Your task to perform on an android device: choose inbox layout in the gmail app Image 0: 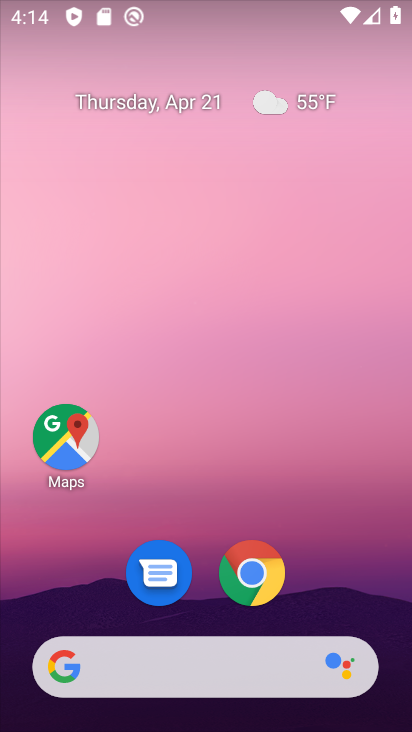
Step 0: drag from (380, 613) to (268, 125)
Your task to perform on an android device: choose inbox layout in the gmail app Image 1: 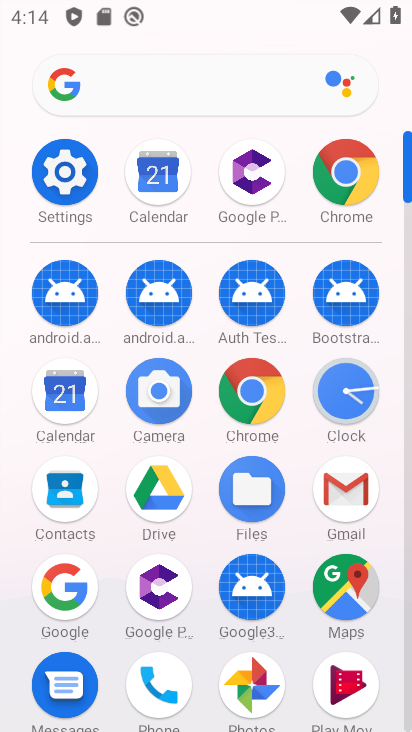
Step 1: click (410, 689)
Your task to perform on an android device: choose inbox layout in the gmail app Image 2: 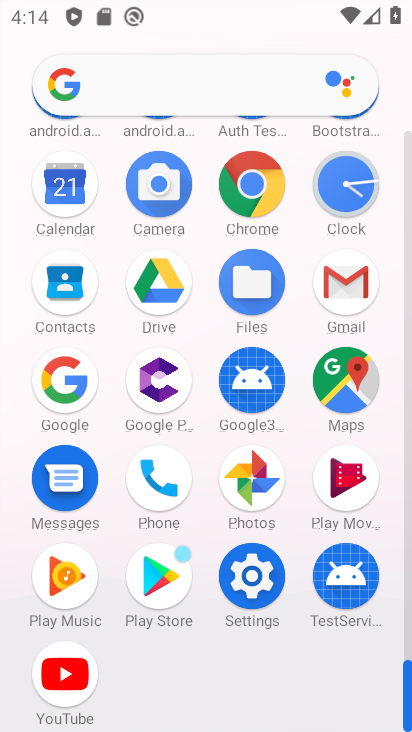
Step 2: click (346, 276)
Your task to perform on an android device: choose inbox layout in the gmail app Image 3: 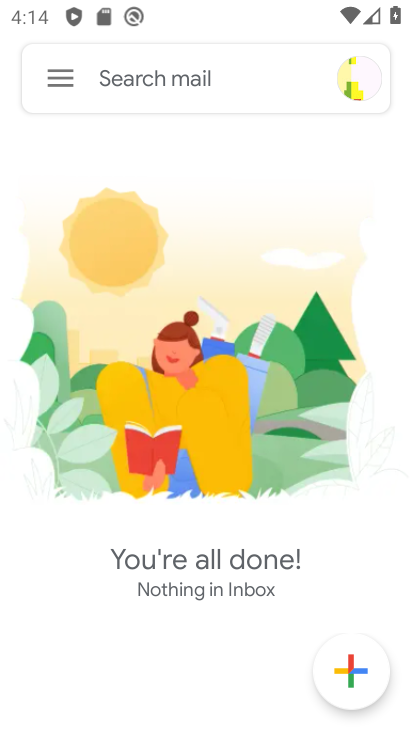
Step 3: click (55, 78)
Your task to perform on an android device: choose inbox layout in the gmail app Image 4: 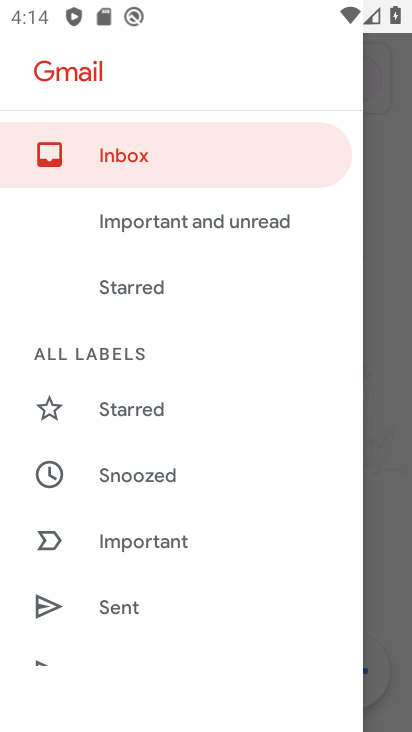
Step 4: drag from (255, 503) to (271, 231)
Your task to perform on an android device: choose inbox layout in the gmail app Image 5: 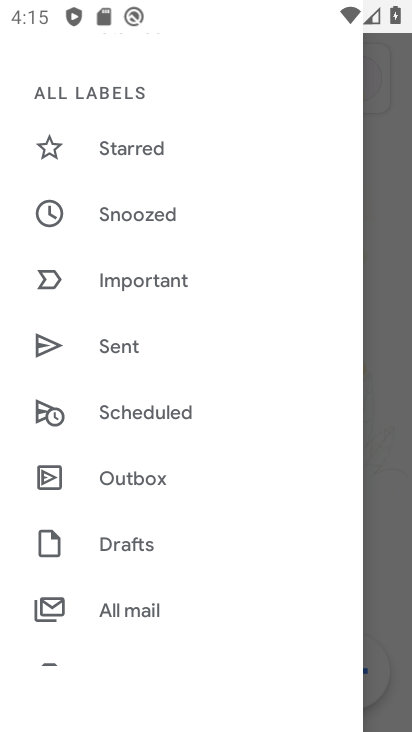
Step 5: drag from (281, 516) to (298, 219)
Your task to perform on an android device: choose inbox layout in the gmail app Image 6: 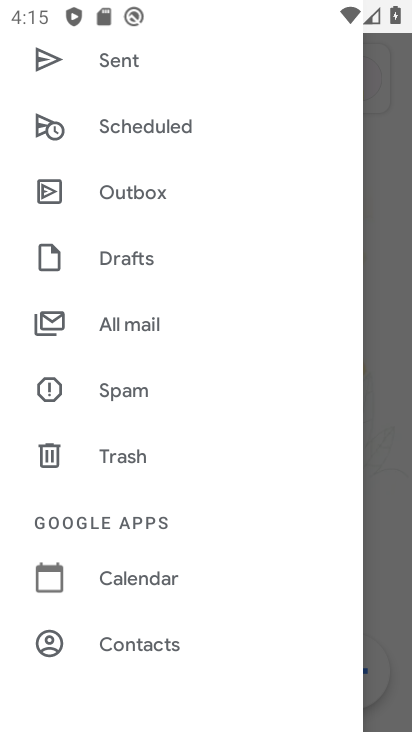
Step 6: drag from (289, 578) to (307, 313)
Your task to perform on an android device: choose inbox layout in the gmail app Image 7: 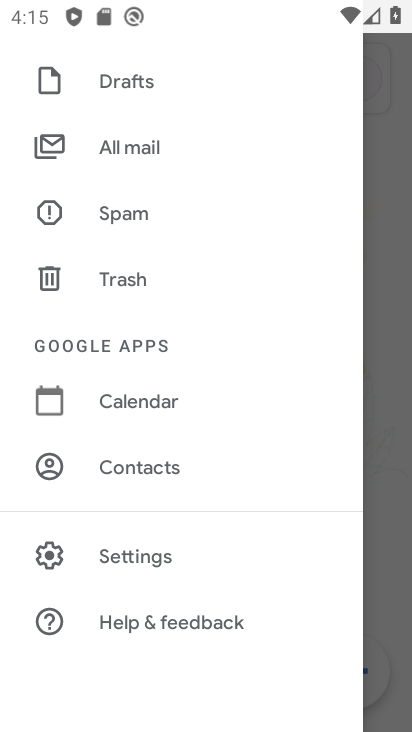
Step 7: click (118, 551)
Your task to perform on an android device: choose inbox layout in the gmail app Image 8: 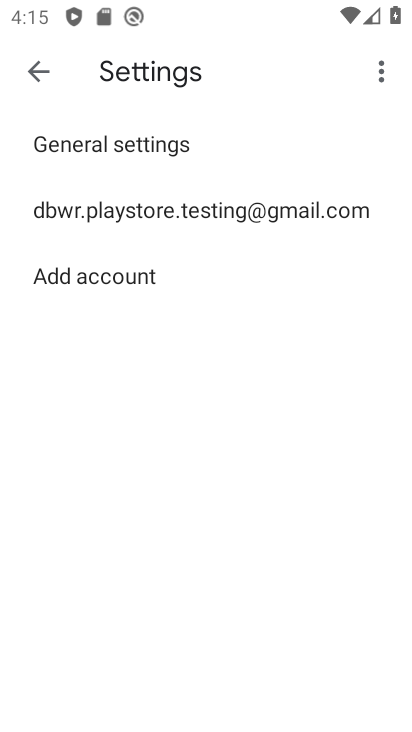
Step 8: click (131, 206)
Your task to perform on an android device: choose inbox layout in the gmail app Image 9: 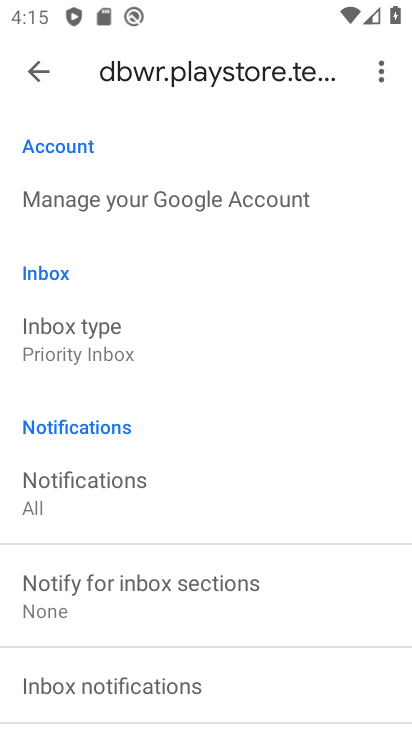
Step 9: click (77, 335)
Your task to perform on an android device: choose inbox layout in the gmail app Image 10: 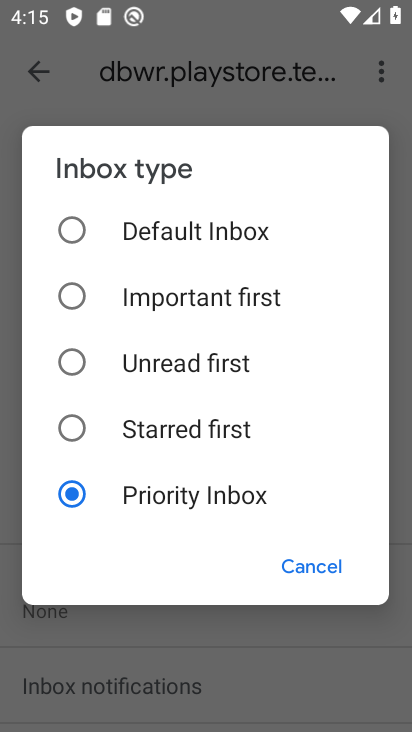
Step 10: click (64, 227)
Your task to perform on an android device: choose inbox layout in the gmail app Image 11: 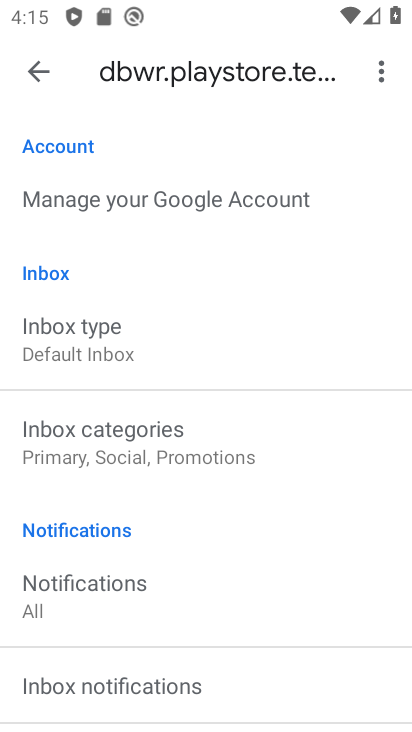
Step 11: task complete